Your task to perform on an android device: open chrome privacy settings Image 0: 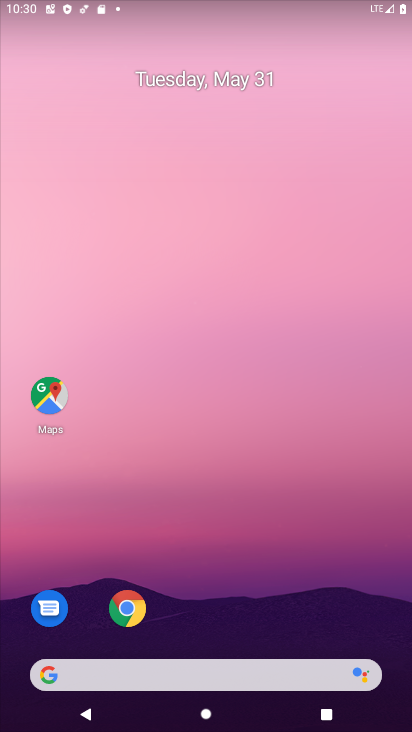
Step 0: click (128, 602)
Your task to perform on an android device: open chrome privacy settings Image 1: 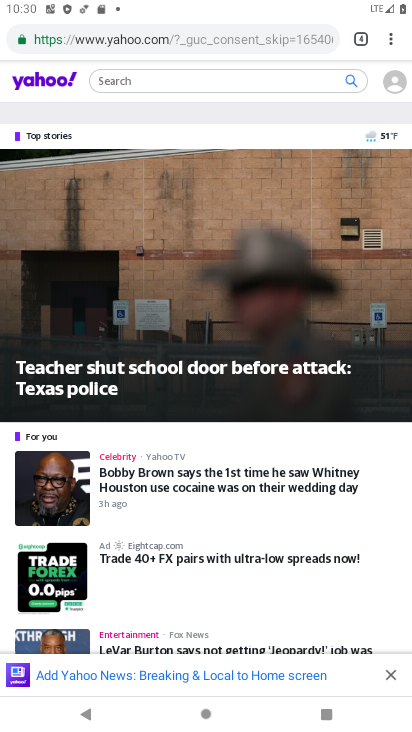
Step 1: drag from (390, 39) to (258, 524)
Your task to perform on an android device: open chrome privacy settings Image 2: 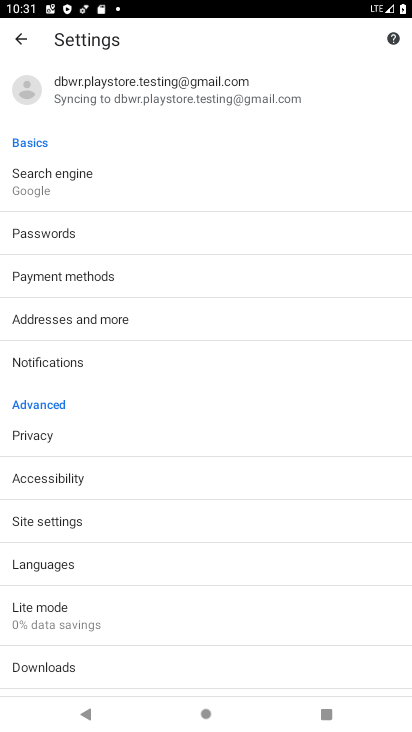
Step 2: click (38, 436)
Your task to perform on an android device: open chrome privacy settings Image 3: 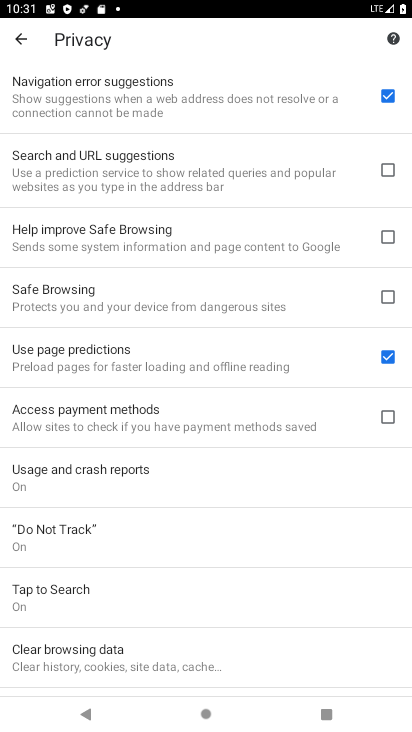
Step 3: task complete